Your task to perform on an android device: Search for pizza restaurants on Maps Image 0: 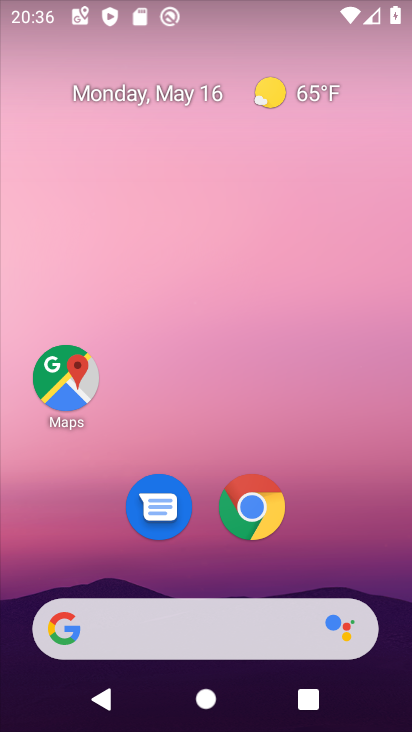
Step 0: click (55, 384)
Your task to perform on an android device: Search for pizza restaurants on Maps Image 1: 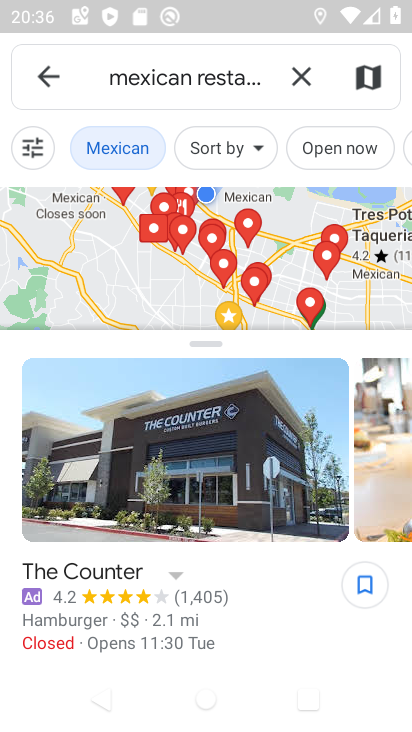
Step 1: click (292, 69)
Your task to perform on an android device: Search for pizza restaurants on Maps Image 2: 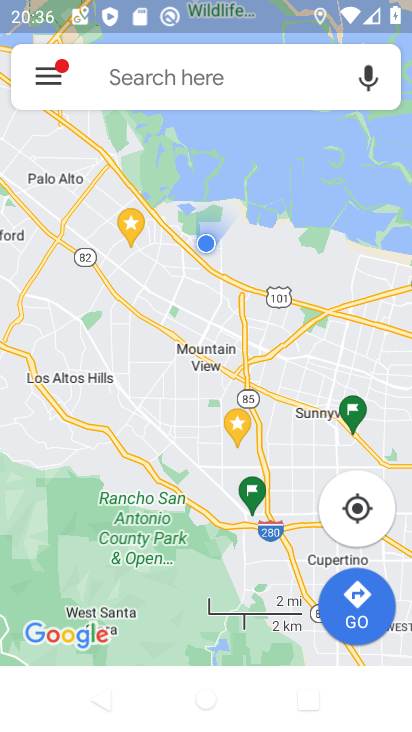
Step 2: click (205, 71)
Your task to perform on an android device: Search for pizza restaurants on Maps Image 3: 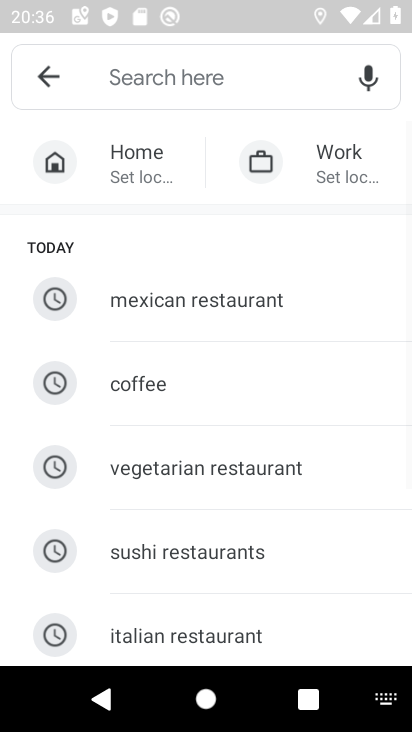
Step 3: click (226, 546)
Your task to perform on an android device: Search for pizza restaurants on Maps Image 4: 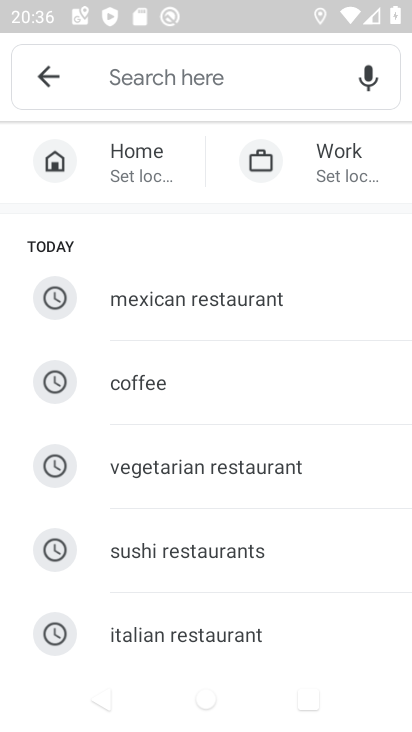
Step 4: click (139, 66)
Your task to perform on an android device: Search for pizza restaurants on Maps Image 5: 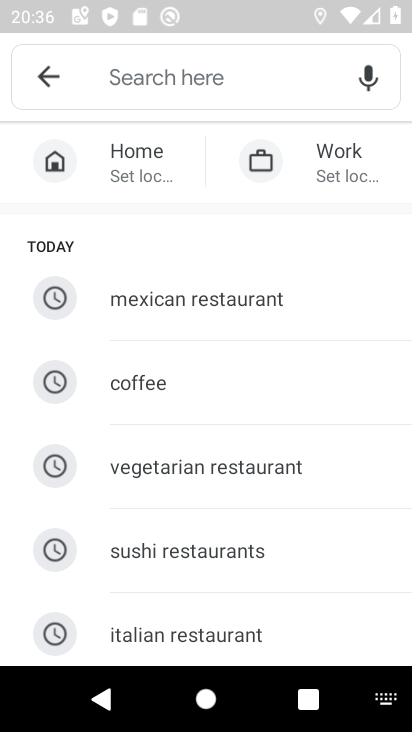
Step 5: type "pizza"
Your task to perform on an android device: Search for pizza restaurants on Maps Image 6: 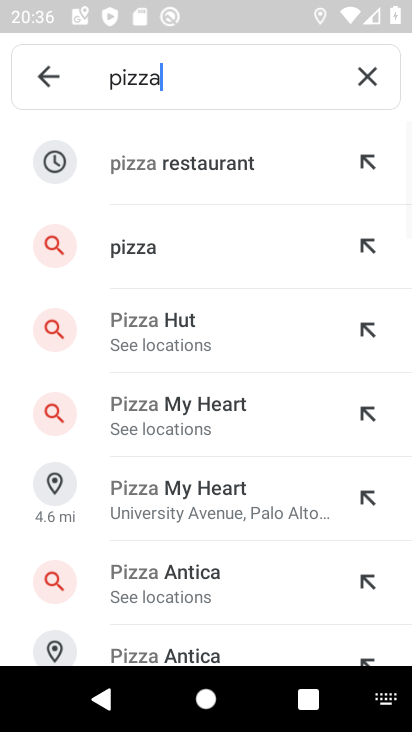
Step 6: click (179, 158)
Your task to perform on an android device: Search for pizza restaurants on Maps Image 7: 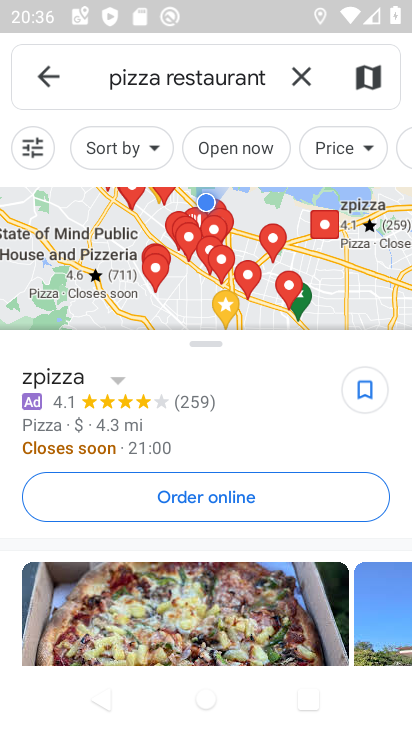
Step 7: task complete